Your task to perform on an android device: Open Google Chrome and open the bookmarks view Image 0: 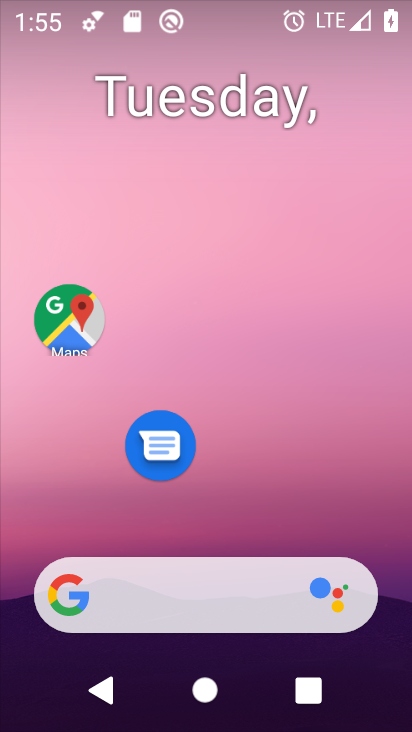
Step 0: drag from (275, 483) to (235, 61)
Your task to perform on an android device: Open Google Chrome and open the bookmarks view Image 1: 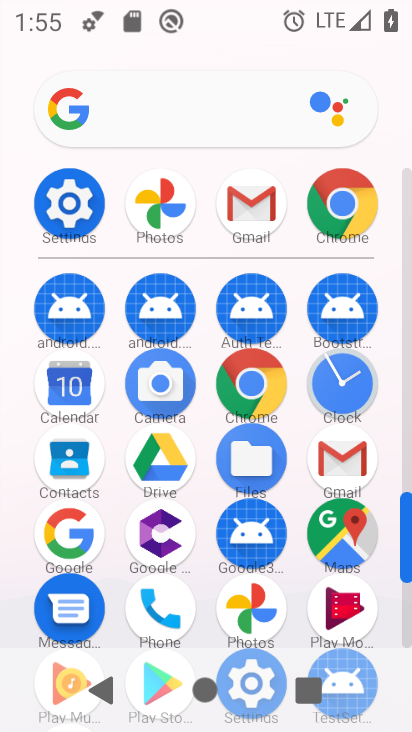
Step 1: click (342, 203)
Your task to perform on an android device: Open Google Chrome and open the bookmarks view Image 2: 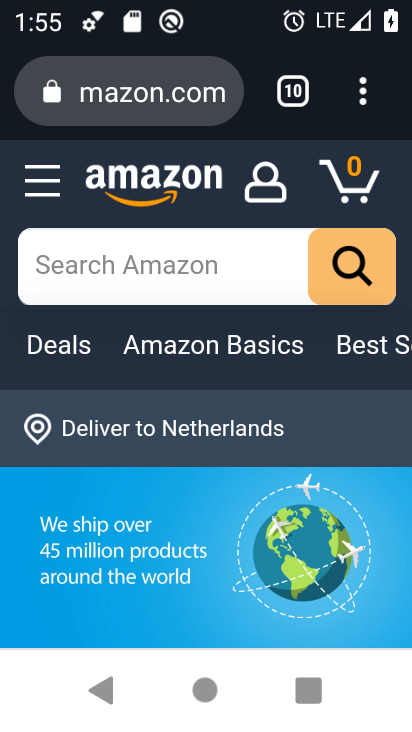
Step 2: click (361, 95)
Your task to perform on an android device: Open Google Chrome and open the bookmarks view Image 3: 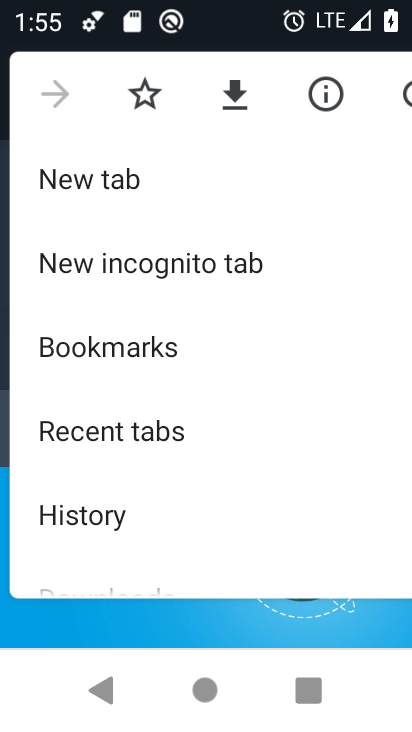
Step 3: drag from (249, 480) to (196, 108)
Your task to perform on an android device: Open Google Chrome and open the bookmarks view Image 4: 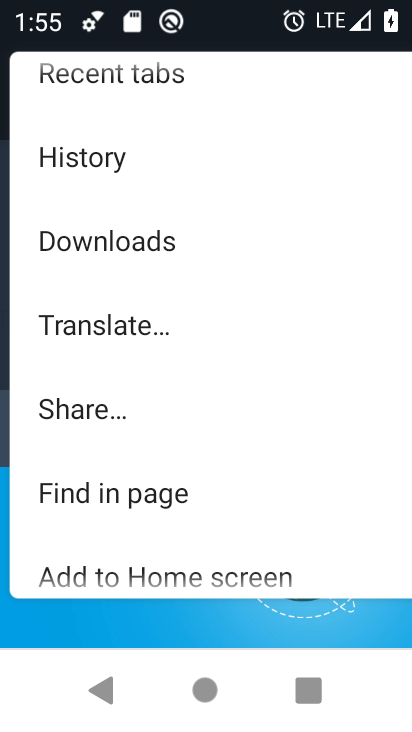
Step 4: drag from (237, 485) to (184, 190)
Your task to perform on an android device: Open Google Chrome and open the bookmarks view Image 5: 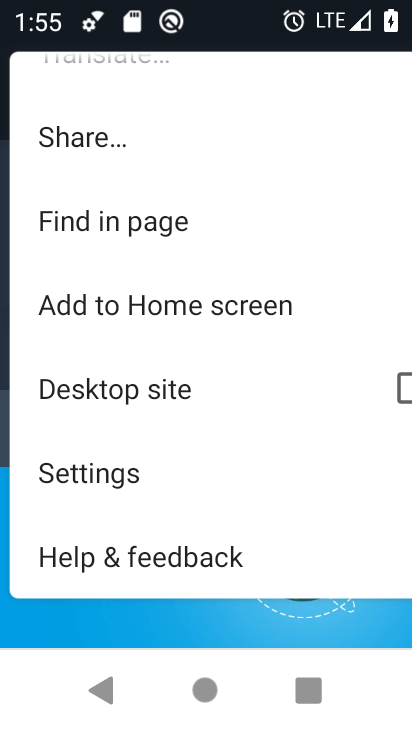
Step 5: drag from (215, 181) to (211, 548)
Your task to perform on an android device: Open Google Chrome and open the bookmarks view Image 6: 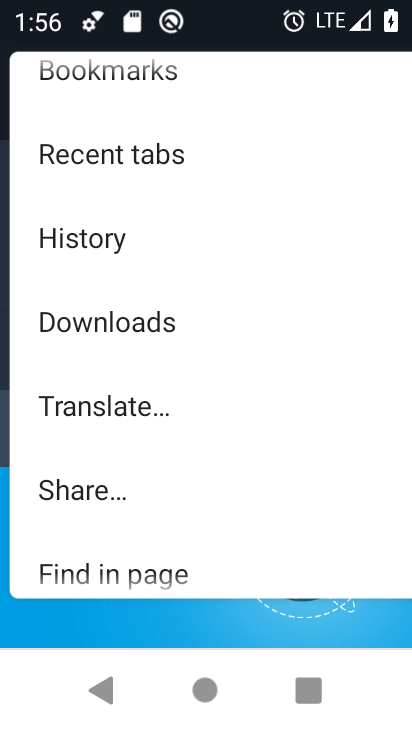
Step 6: drag from (187, 189) to (198, 554)
Your task to perform on an android device: Open Google Chrome and open the bookmarks view Image 7: 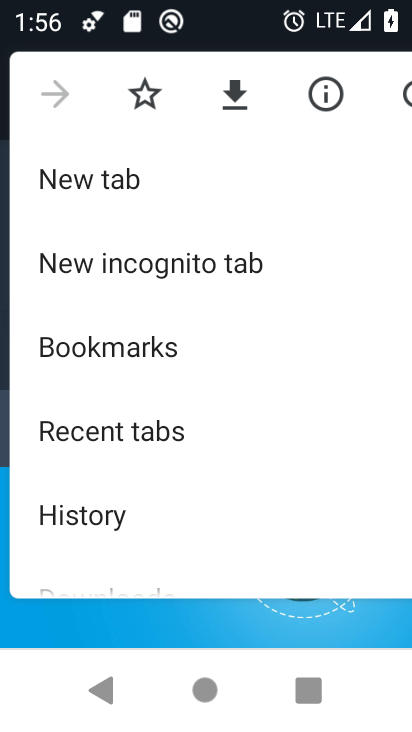
Step 7: click (133, 339)
Your task to perform on an android device: Open Google Chrome and open the bookmarks view Image 8: 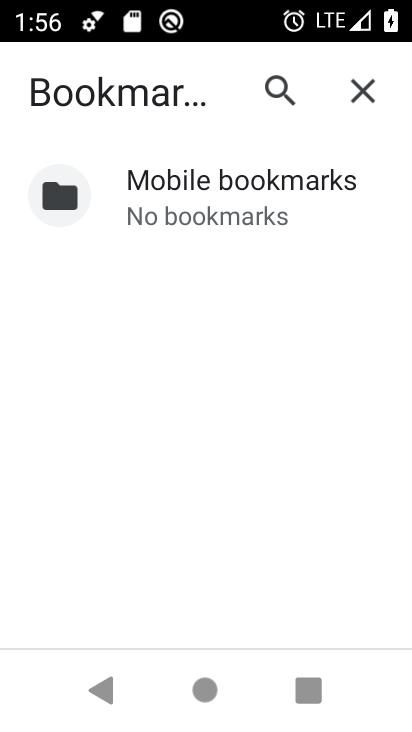
Step 8: click (270, 185)
Your task to perform on an android device: Open Google Chrome and open the bookmarks view Image 9: 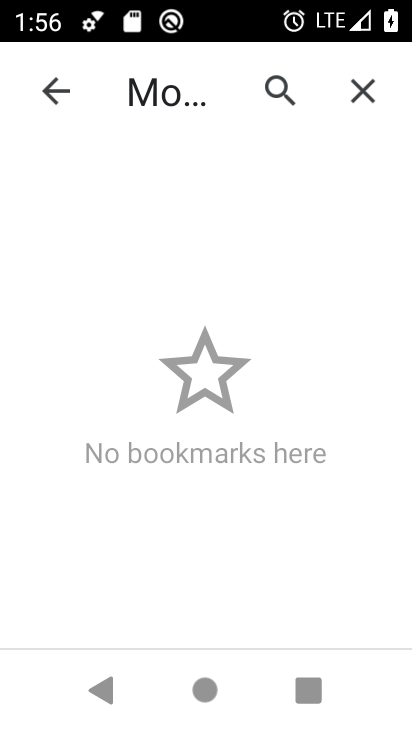
Step 9: task complete